Your task to perform on an android device: Search for Italian restaurants on Maps Image 0: 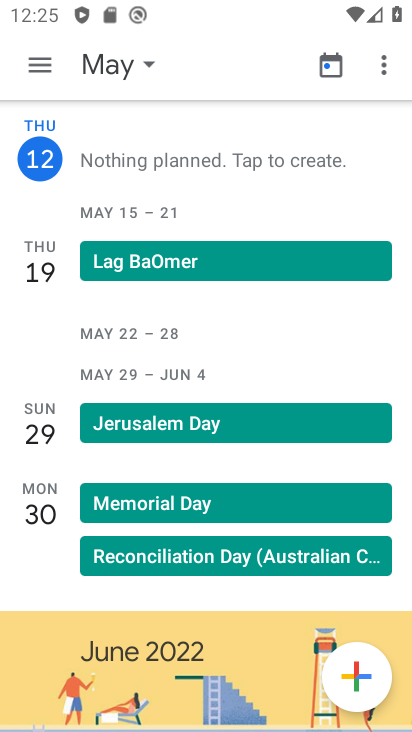
Step 0: press home button
Your task to perform on an android device: Search for Italian restaurants on Maps Image 1: 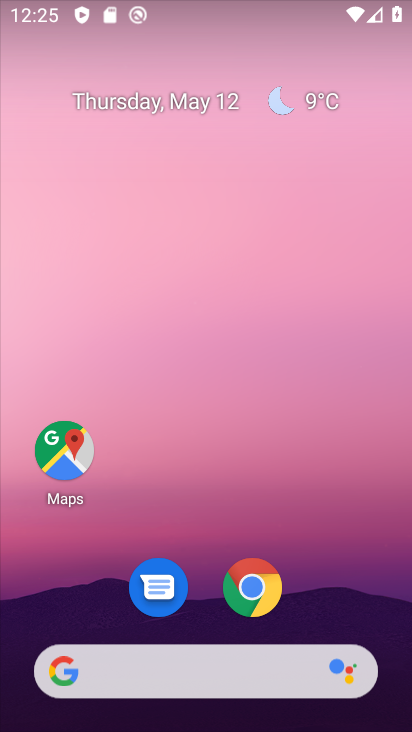
Step 1: drag from (214, 627) to (176, 0)
Your task to perform on an android device: Search for Italian restaurants on Maps Image 2: 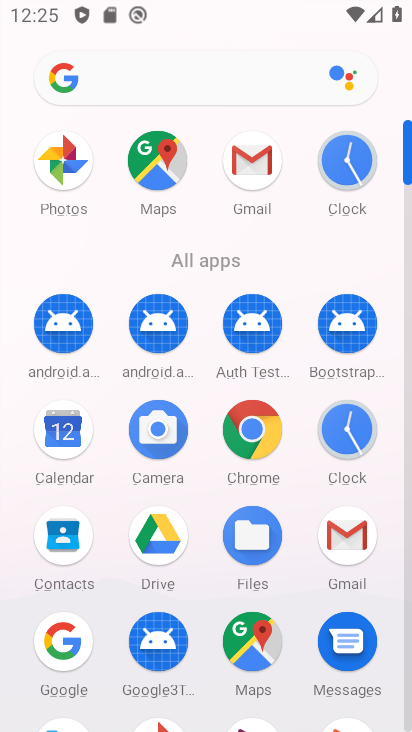
Step 2: drag from (206, 555) to (171, 48)
Your task to perform on an android device: Search for Italian restaurants on Maps Image 3: 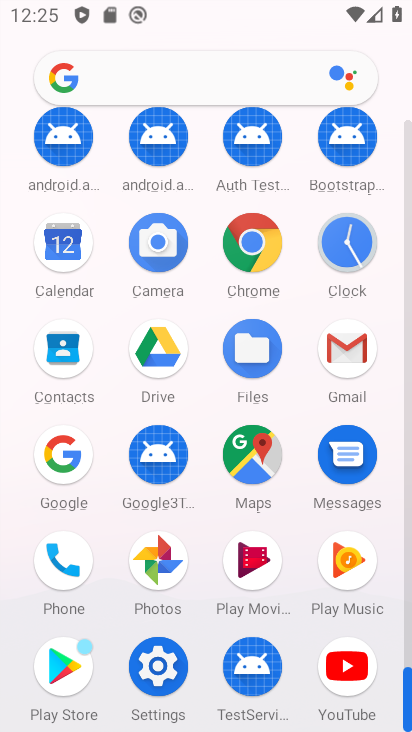
Step 3: click (245, 468)
Your task to perform on an android device: Search for Italian restaurants on Maps Image 4: 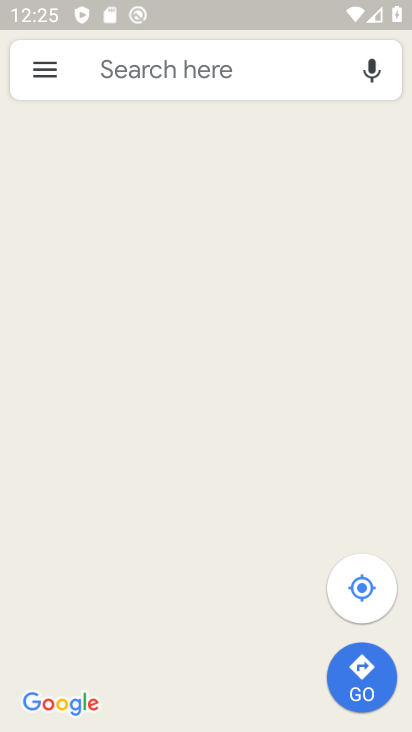
Step 4: click (195, 90)
Your task to perform on an android device: Search for Italian restaurants on Maps Image 5: 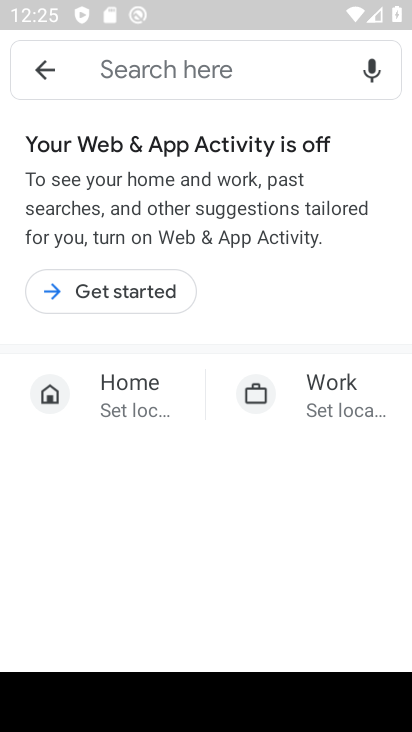
Step 5: click (145, 301)
Your task to perform on an android device: Search for Italian restaurants on Maps Image 6: 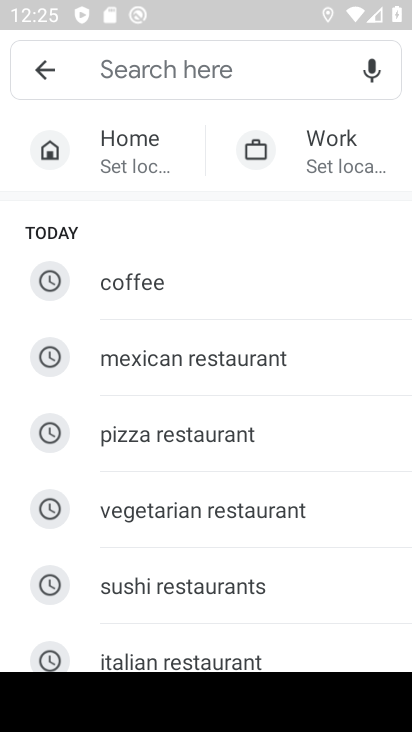
Step 6: click (191, 635)
Your task to perform on an android device: Search for Italian restaurants on Maps Image 7: 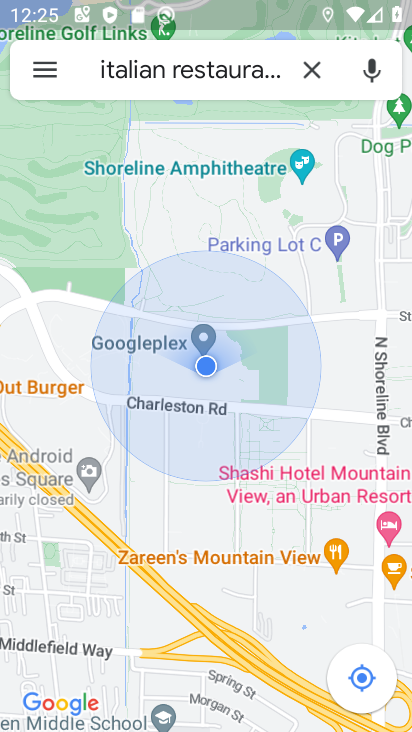
Step 7: task complete